Your task to perform on an android device: Search for pizza restaurants on Maps Image 0: 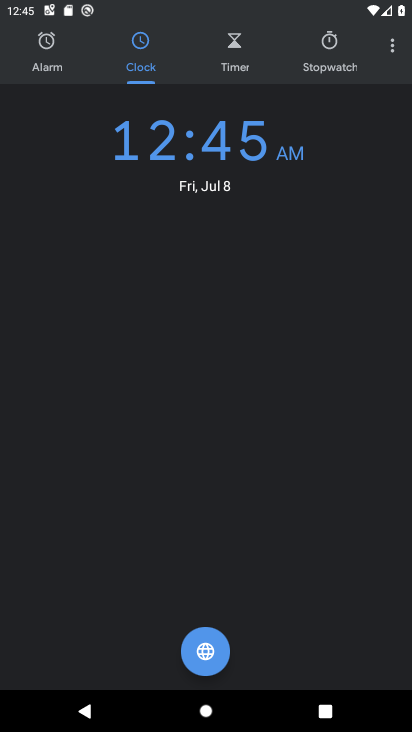
Step 0: press home button
Your task to perform on an android device: Search for pizza restaurants on Maps Image 1: 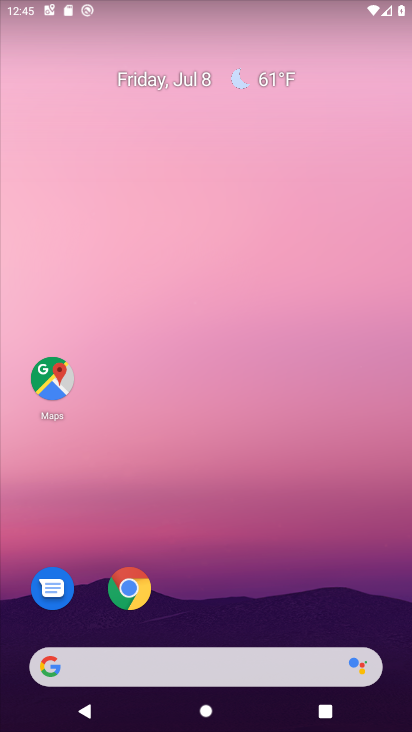
Step 1: click (52, 383)
Your task to perform on an android device: Search for pizza restaurants on Maps Image 2: 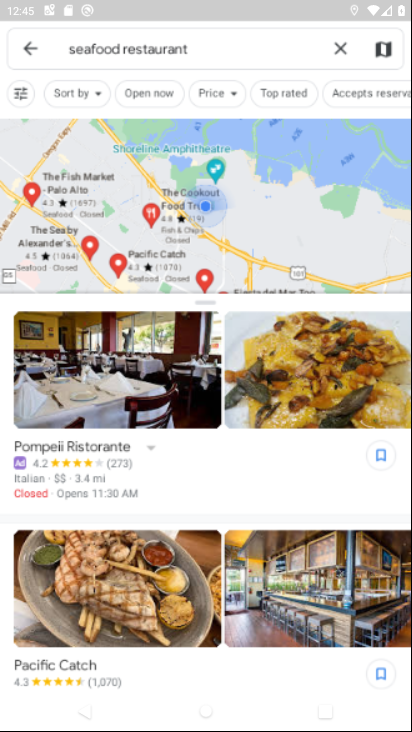
Step 2: click (342, 41)
Your task to perform on an android device: Search for pizza restaurants on Maps Image 3: 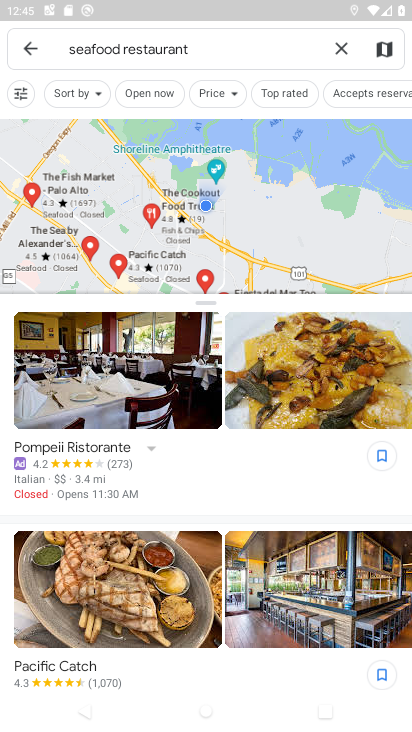
Step 3: click (342, 47)
Your task to perform on an android device: Search for pizza restaurants on Maps Image 4: 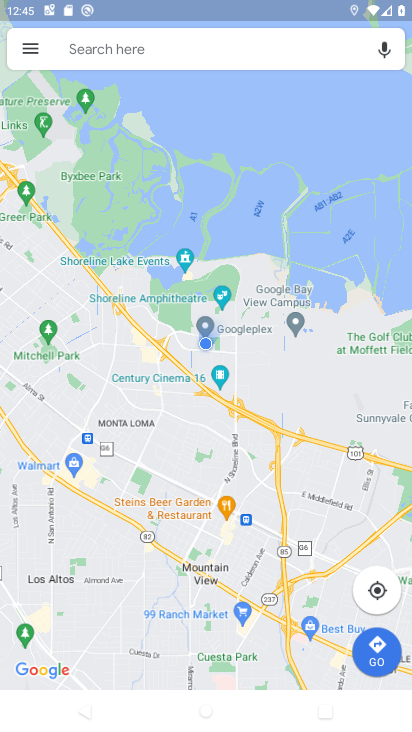
Step 4: type "pizza restaurants "
Your task to perform on an android device: Search for pizza restaurants on Maps Image 5: 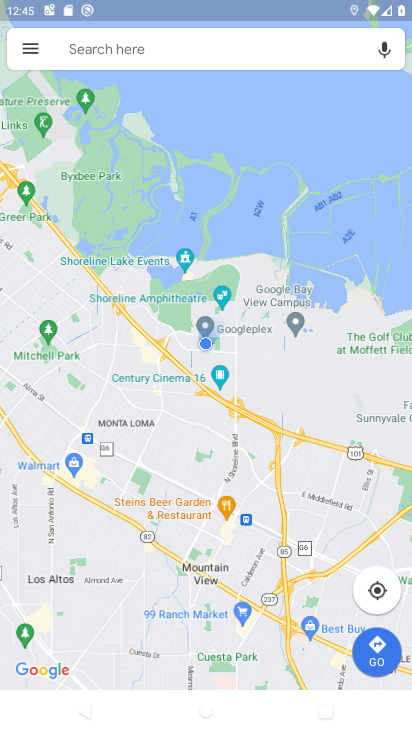
Step 5: click (127, 42)
Your task to perform on an android device: Search for pizza restaurants on Maps Image 6: 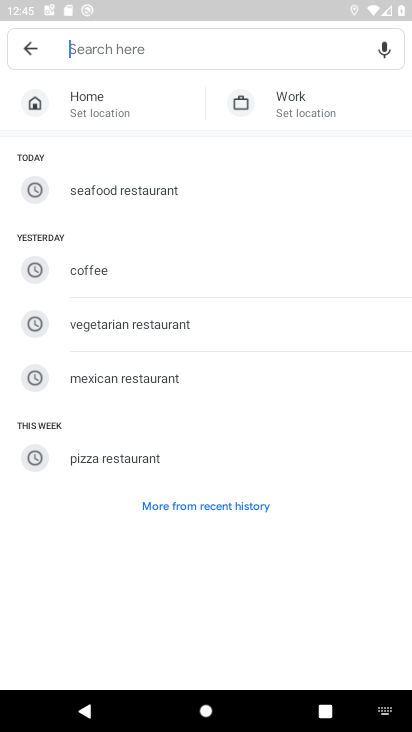
Step 6: click (116, 459)
Your task to perform on an android device: Search for pizza restaurants on Maps Image 7: 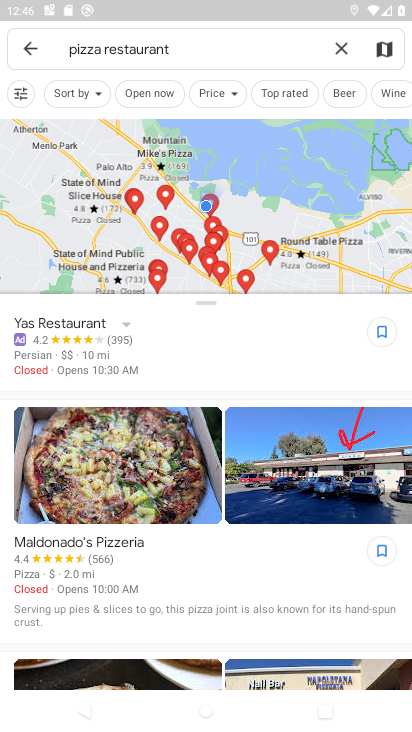
Step 7: task complete